Your task to perform on an android device: open a bookmark in the chrome app Image 0: 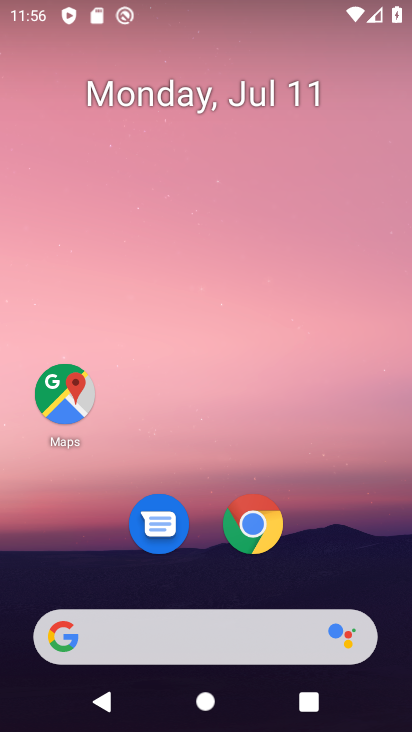
Step 0: click (256, 516)
Your task to perform on an android device: open a bookmark in the chrome app Image 1: 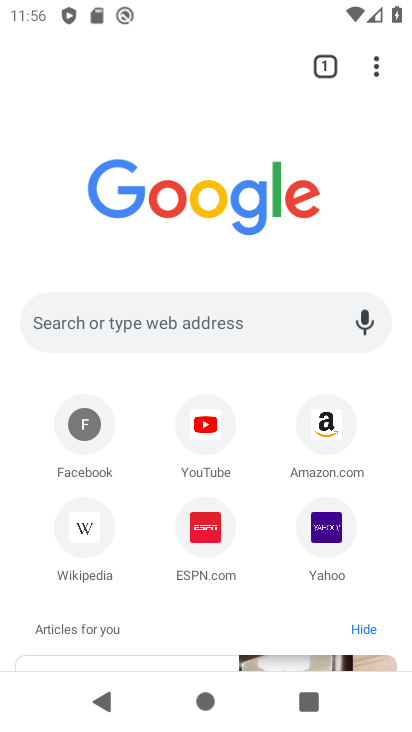
Step 1: click (377, 65)
Your task to perform on an android device: open a bookmark in the chrome app Image 2: 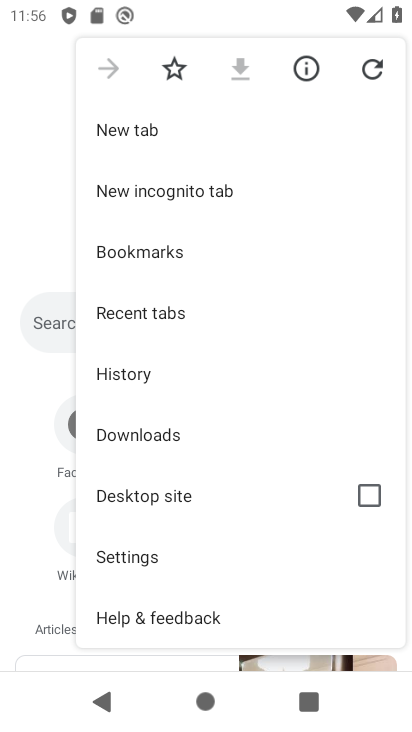
Step 2: click (165, 251)
Your task to perform on an android device: open a bookmark in the chrome app Image 3: 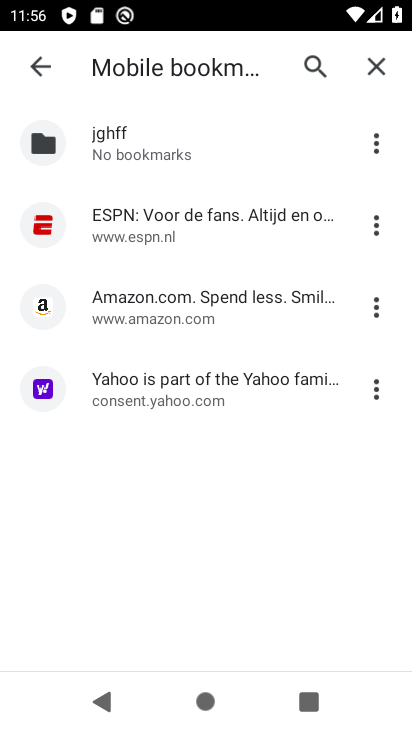
Step 3: click (170, 227)
Your task to perform on an android device: open a bookmark in the chrome app Image 4: 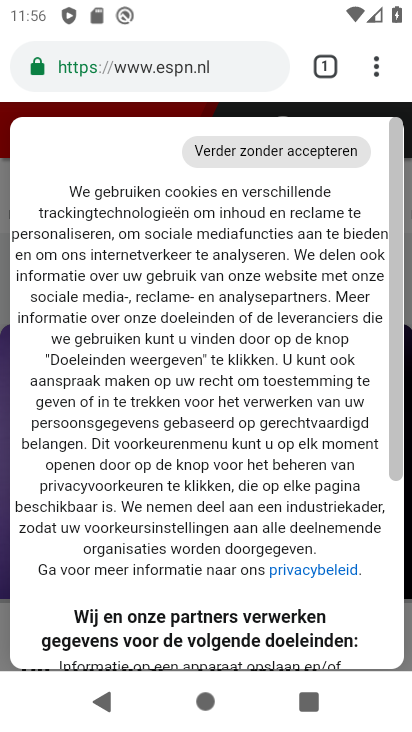
Step 4: task complete